Your task to perform on an android device: When is my next appointment? Image 0: 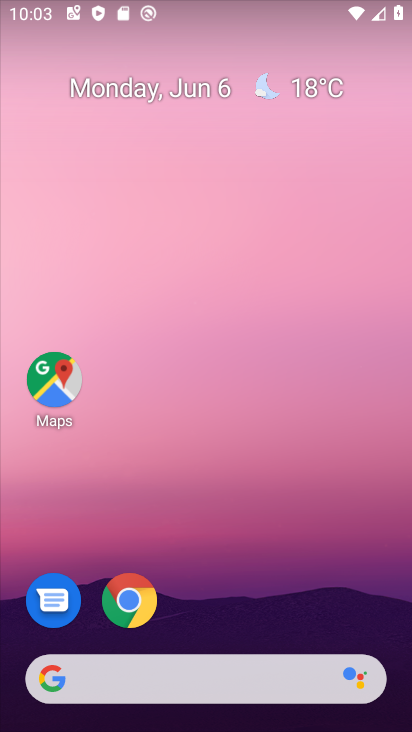
Step 0: drag from (283, 606) to (298, 67)
Your task to perform on an android device: When is my next appointment? Image 1: 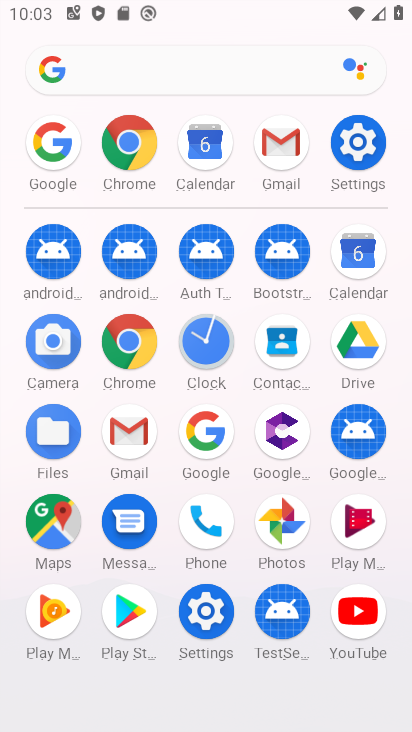
Step 1: drag from (13, 583) to (22, 239)
Your task to perform on an android device: When is my next appointment? Image 2: 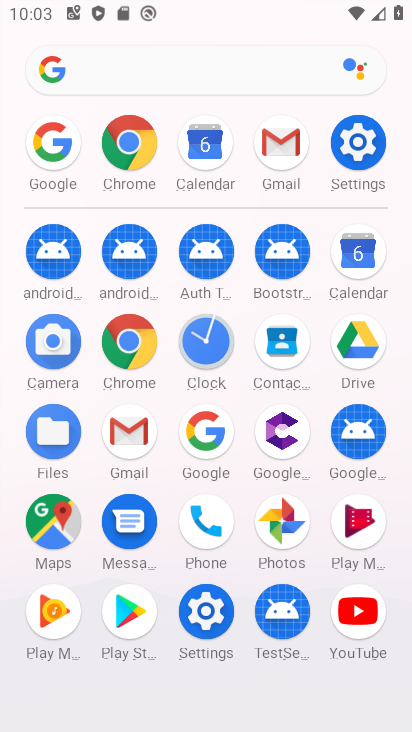
Step 2: click (361, 245)
Your task to perform on an android device: When is my next appointment? Image 3: 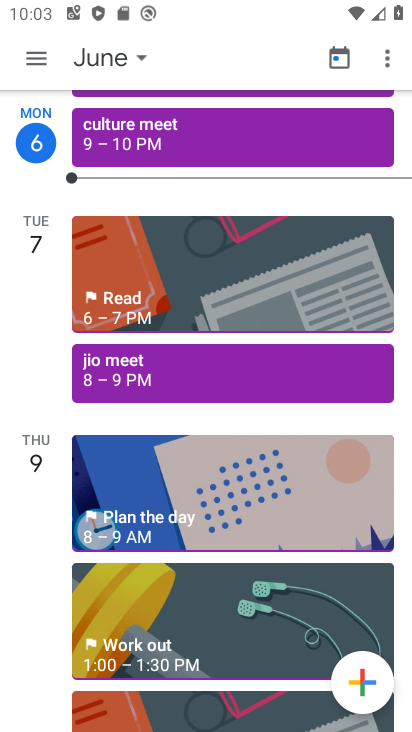
Step 3: click (45, 53)
Your task to perform on an android device: When is my next appointment? Image 4: 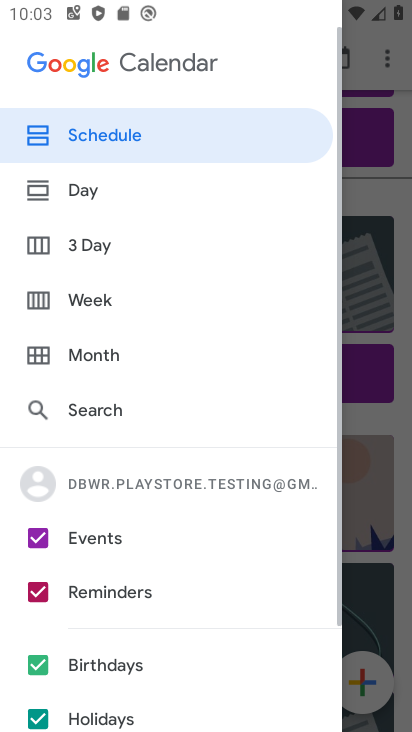
Step 4: click (131, 116)
Your task to perform on an android device: When is my next appointment? Image 5: 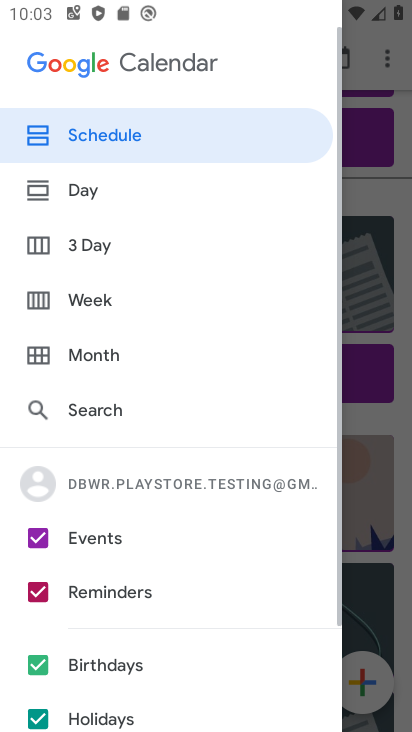
Step 5: click (135, 134)
Your task to perform on an android device: When is my next appointment? Image 6: 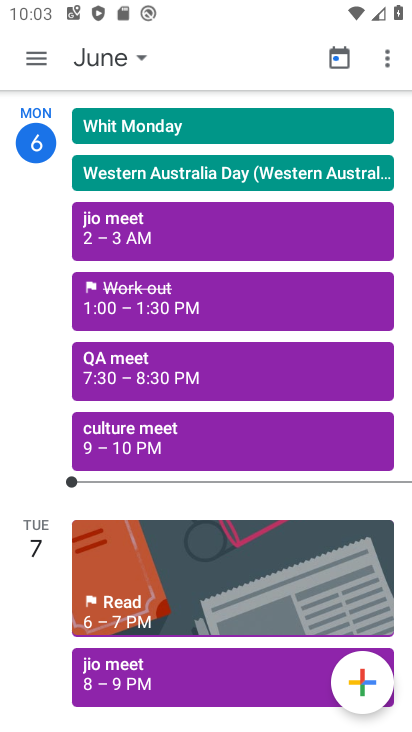
Step 6: task complete